Your task to perform on an android device: toggle sleep mode Image 0: 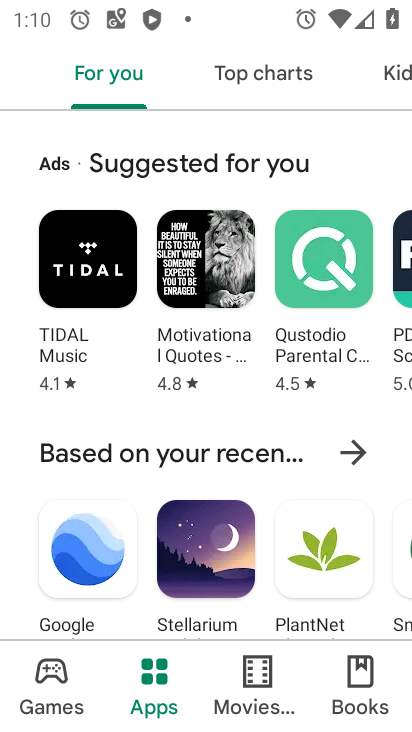
Step 0: press back button
Your task to perform on an android device: toggle sleep mode Image 1: 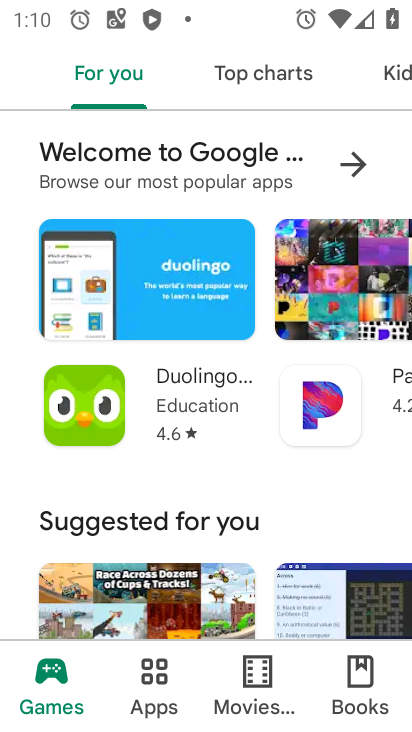
Step 1: press back button
Your task to perform on an android device: toggle sleep mode Image 2: 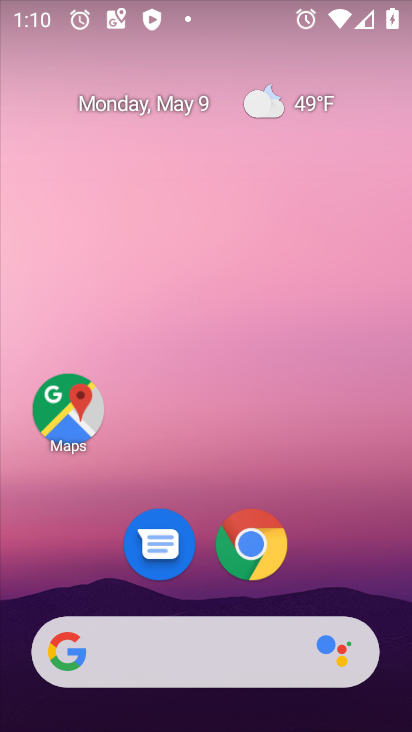
Step 2: drag from (201, 637) to (253, 59)
Your task to perform on an android device: toggle sleep mode Image 3: 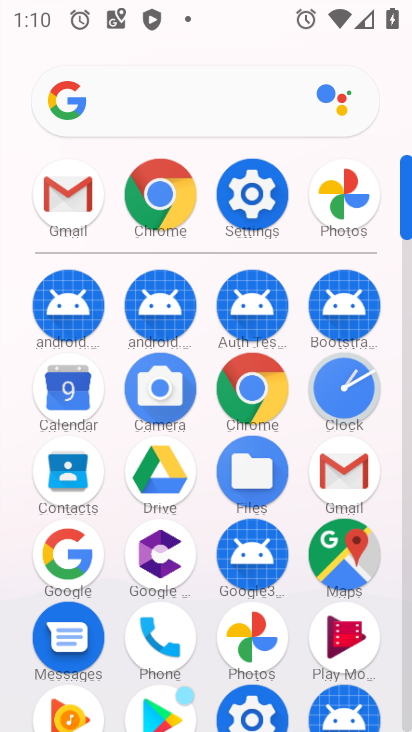
Step 3: click (246, 187)
Your task to perform on an android device: toggle sleep mode Image 4: 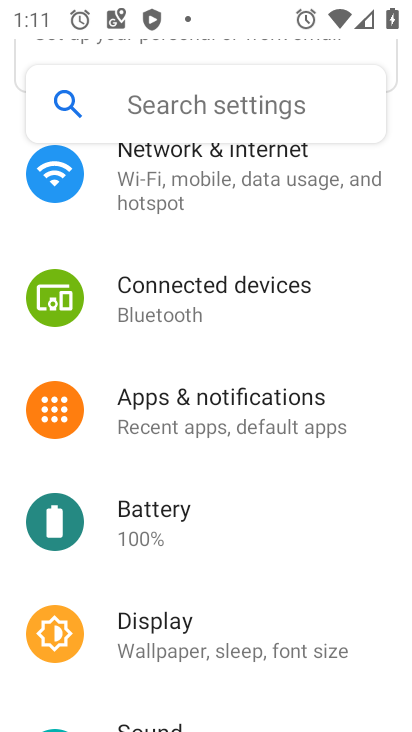
Step 4: click (162, 622)
Your task to perform on an android device: toggle sleep mode Image 5: 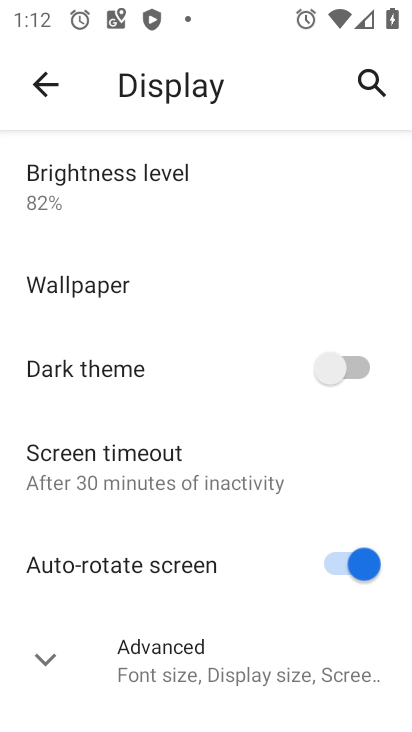
Step 5: task complete